Your task to perform on an android device: Go to internet settings Image 0: 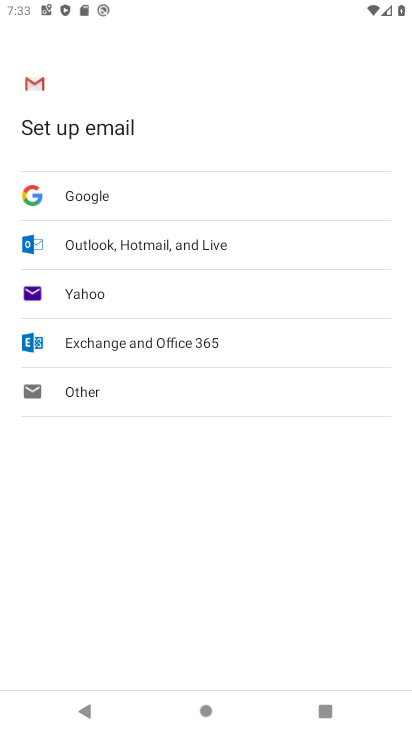
Step 0: press home button
Your task to perform on an android device: Go to internet settings Image 1: 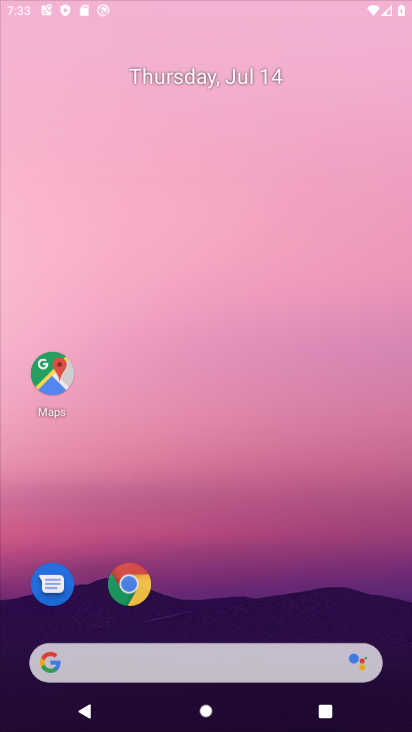
Step 1: drag from (386, 675) to (258, 65)
Your task to perform on an android device: Go to internet settings Image 2: 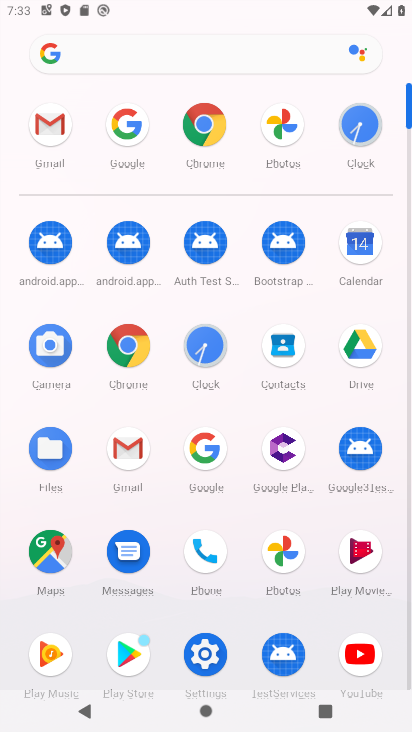
Step 2: click (202, 644)
Your task to perform on an android device: Go to internet settings Image 3: 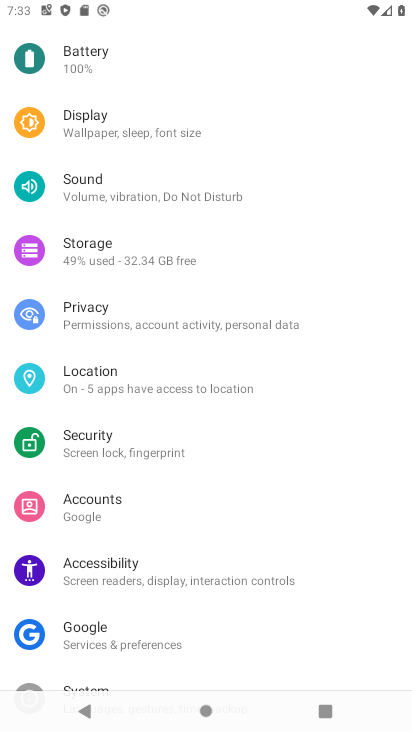
Step 3: drag from (98, 68) to (162, 712)
Your task to perform on an android device: Go to internet settings Image 4: 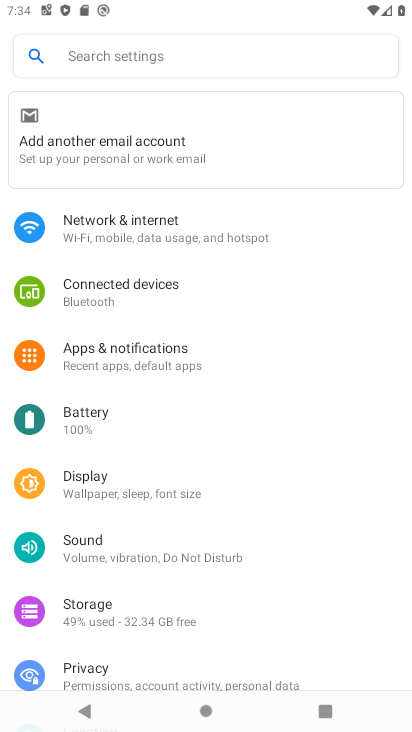
Step 4: click (123, 208)
Your task to perform on an android device: Go to internet settings Image 5: 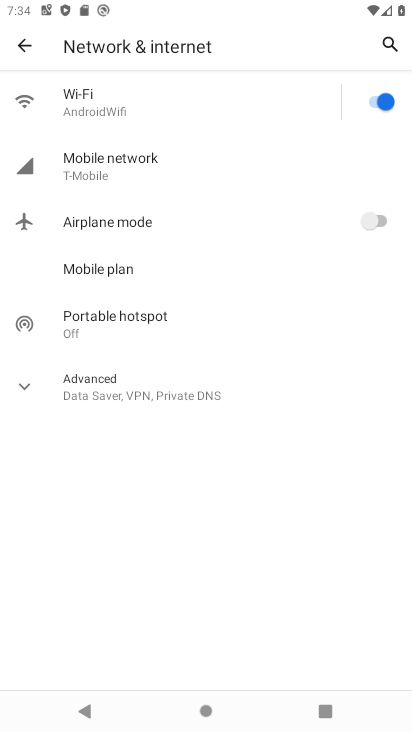
Step 5: task complete